Your task to perform on an android device: Open calendar and show me the second week of next month Image 0: 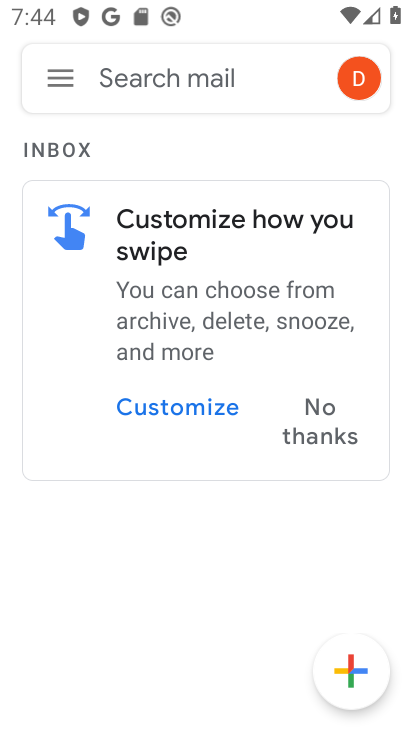
Step 0: press home button
Your task to perform on an android device: Open calendar and show me the second week of next month Image 1: 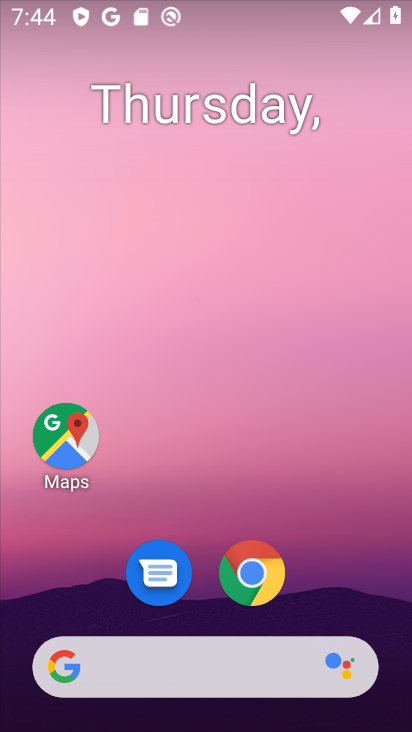
Step 1: drag from (317, 581) to (346, 207)
Your task to perform on an android device: Open calendar and show me the second week of next month Image 2: 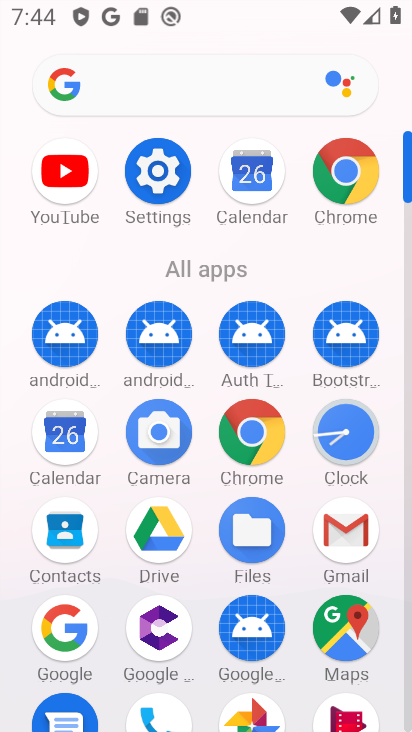
Step 2: click (55, 444)
Your task to perform on an android device: Open calendar and show me the second week of next month Image 3: 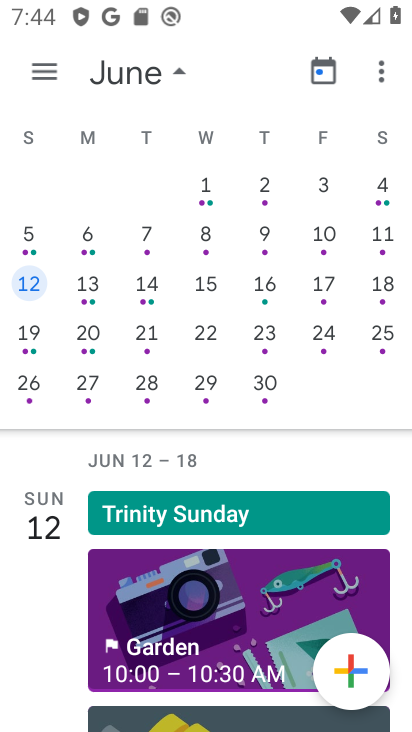
Step 3: click (28, 243)
Your task to perform on an android device: Open calendar and show me the second week of next month Image 4: 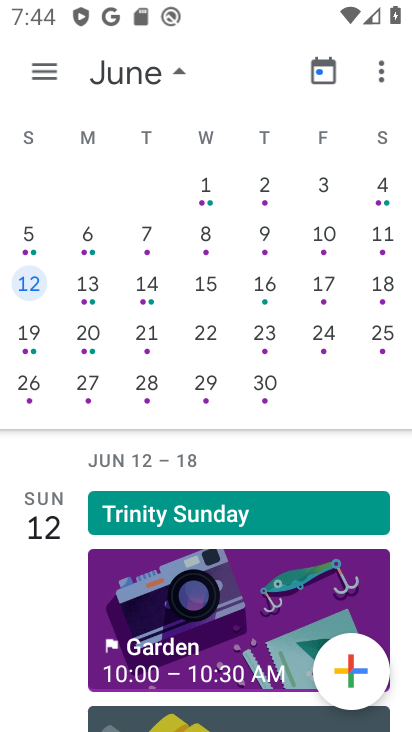
Step 4: task complete